Your task to perform on an android device: create a new album in the google photos Image 0: 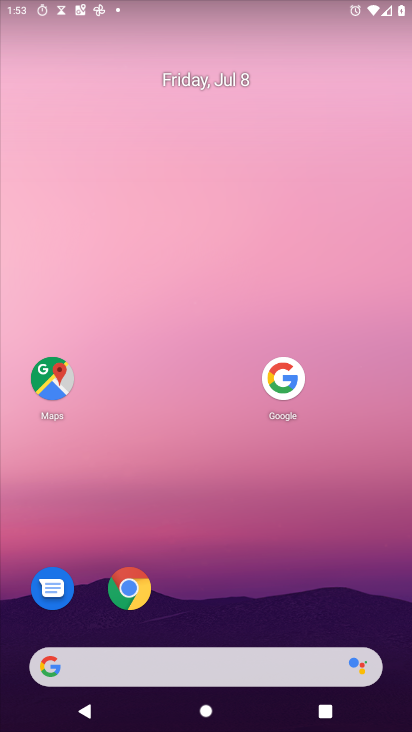
Step 0: drag from (214, 650) to (258, 122)
Your task to perform on an android device: create a new album in the google photos Image 1: 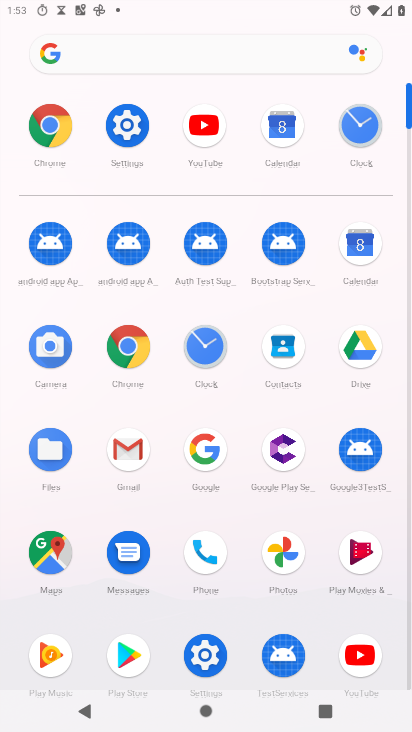
Step 1: click (276, 560)
Your task to perform on an android device: create a new album in the google photos Image 2: 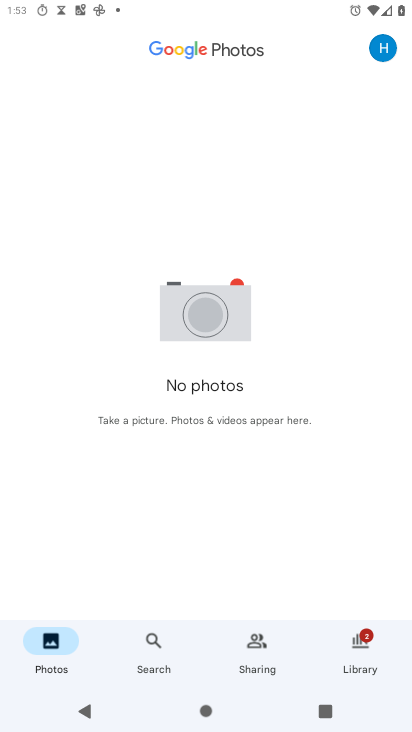
Step 2: click (364, 660)
Your task to perform on an android device: create a new album in the google photos Image 3: 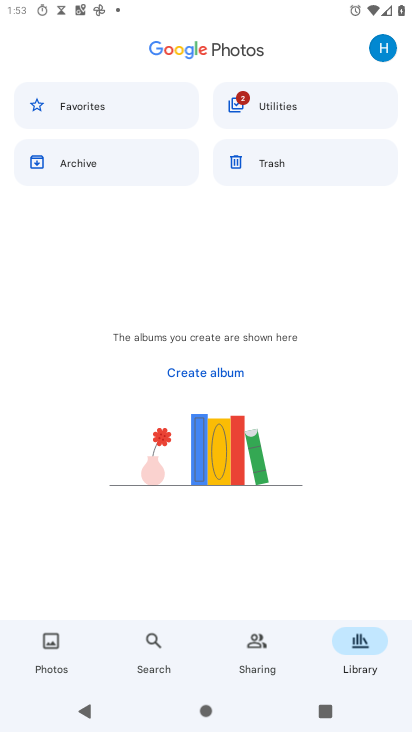
Step 3: click (199, 372)
Your task to perform on an android device: create a new album in the google photos Image 4: 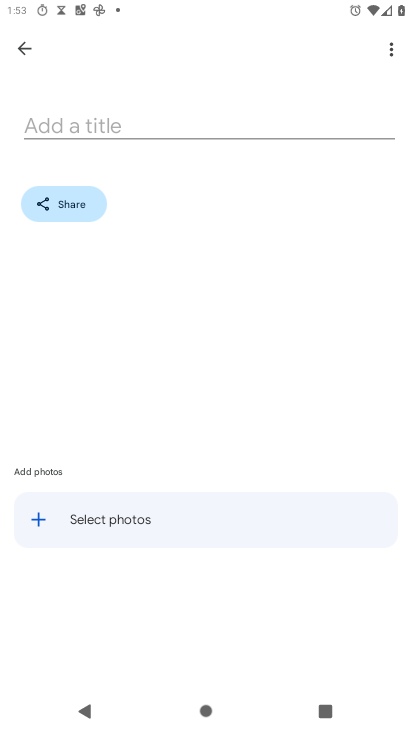
Step 4: click (112, 524)
Your task to perform on an android device: create a new album in the google photos Image 5: 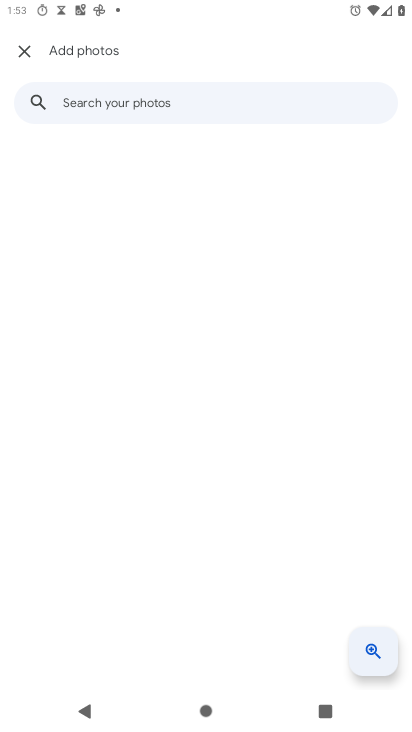
Step 5: task complete